Your task to perform on an android device: Go to wifi settings Image 0: 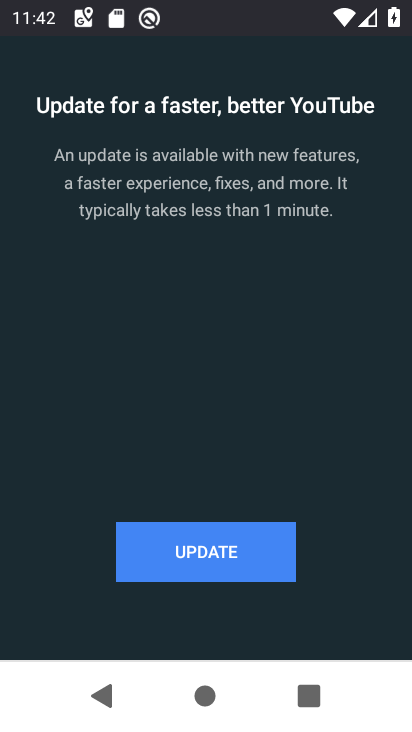
Step 0: click (276, 484)
Your task to perform on an android device: Go to wifi settings Image 1: 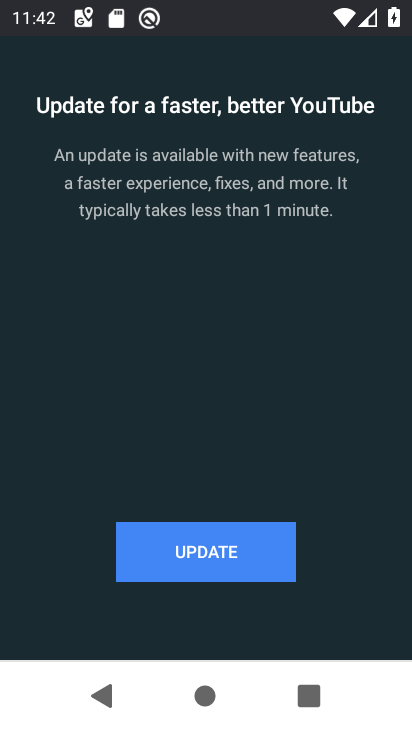
Step 1: press home button
Your task to perform on an android device: Go to wifi settings Image 2: 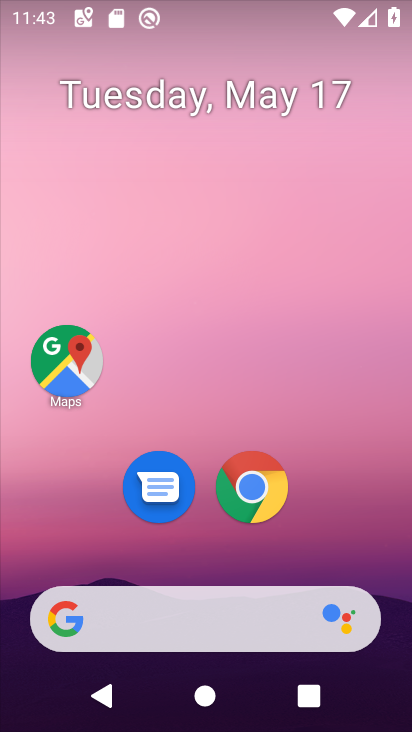
Step 2: drag from (352, 575) to (268, 144)
Your task to perform on an android device: Go to wifi settings Image 3: 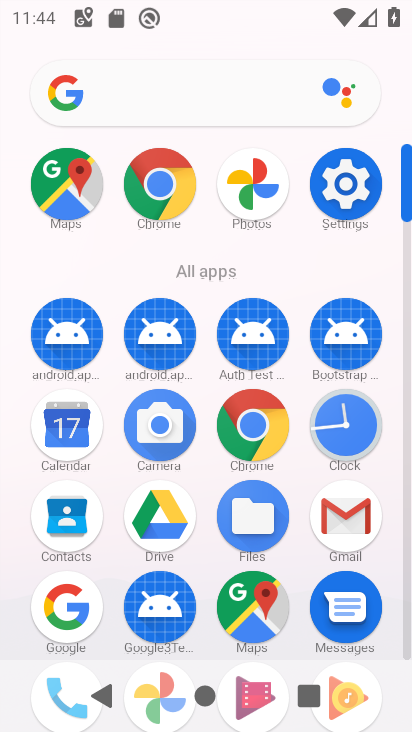
Step 3: click (331, 215)
Your task to perform on an android device: Go to wifi settings Image 4: 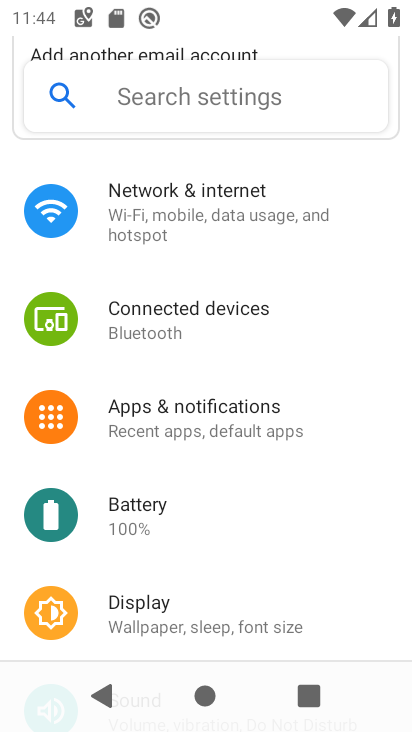
Step 4: click (142, 209)
Your task to perform on an android device: Go to wifi settings Image 5: 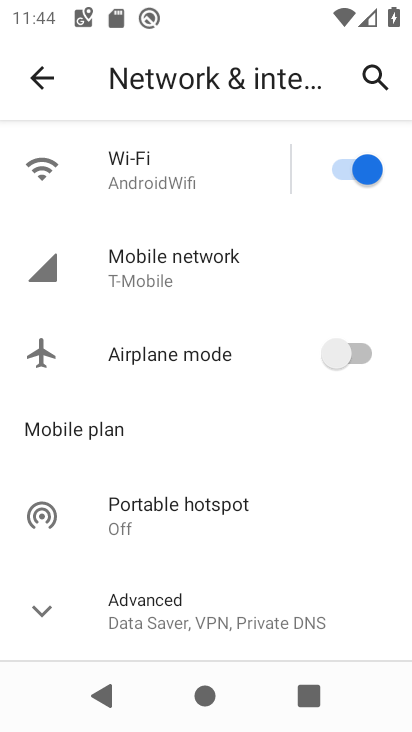
Step 5: click (196, 166)
Your task to perform on an android device: Go to wifi settings Image 6: 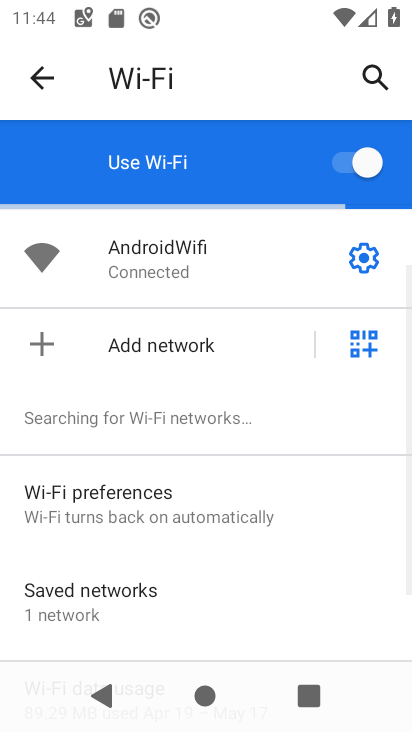
Step 6: task complete